Your task to perform on an android device: Open Google Chrome and click the shortcut for Amazon.com Image 0: 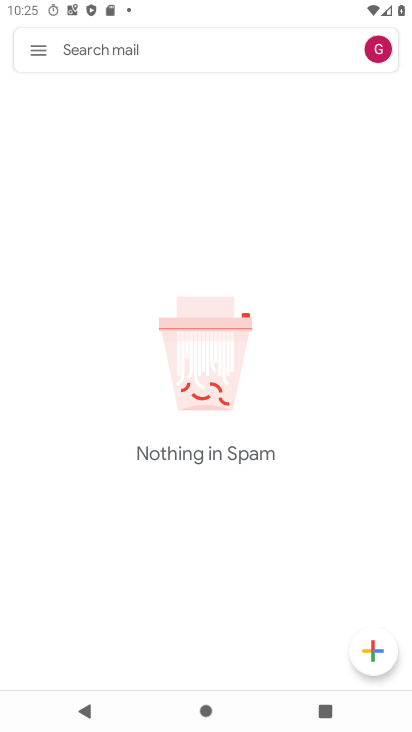
Step 0: press home button
Your task to perform on an android device: Open Google Chrome and click the shortcut for Amazon.com Image 1: 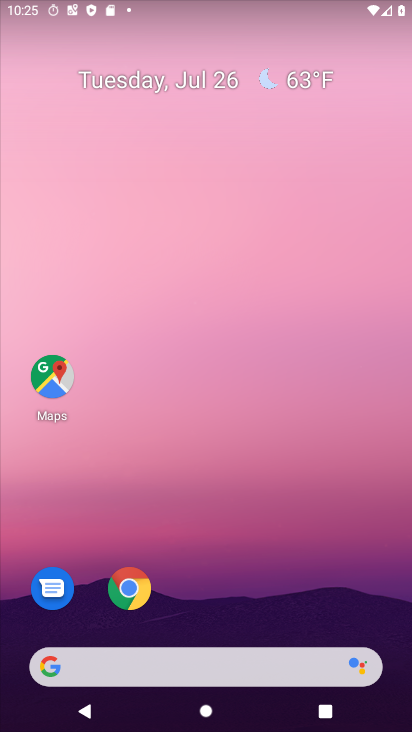
Step 1: click (127, 588)
Your task to perform on an android device: Open Google Chrome and click the shortcut for Amazon.com Image 2: 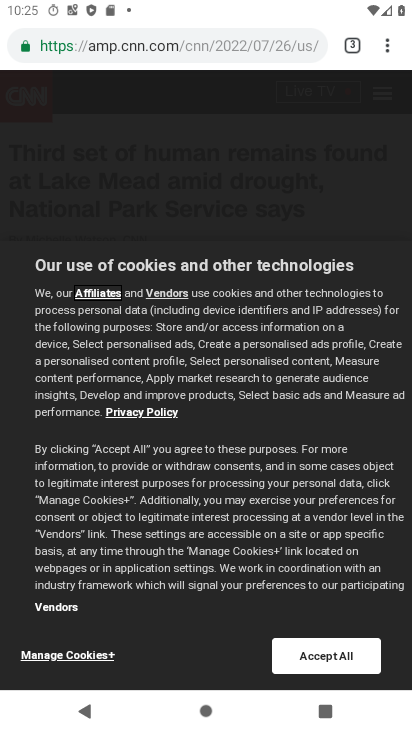
Step 2: click (349, 54)
Your task to perform on an android device: Open Google Chrome and click the shortcut for Amazon.com Image 3: 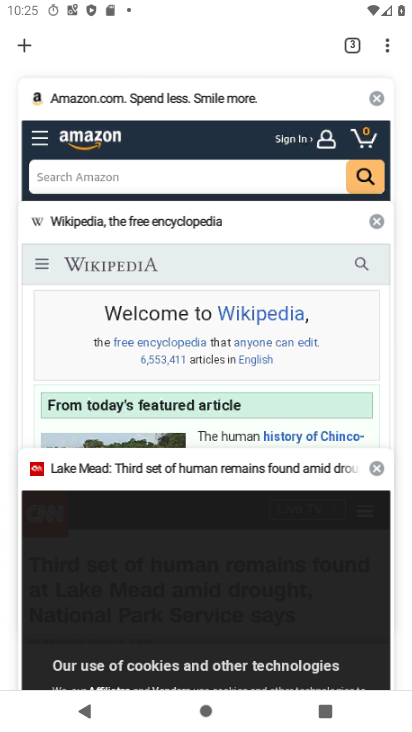
Step 3: click (20, 50)
Your task to perform on an android device: Open Google Chrome and click the shortcut for Amazon.com Image 4: 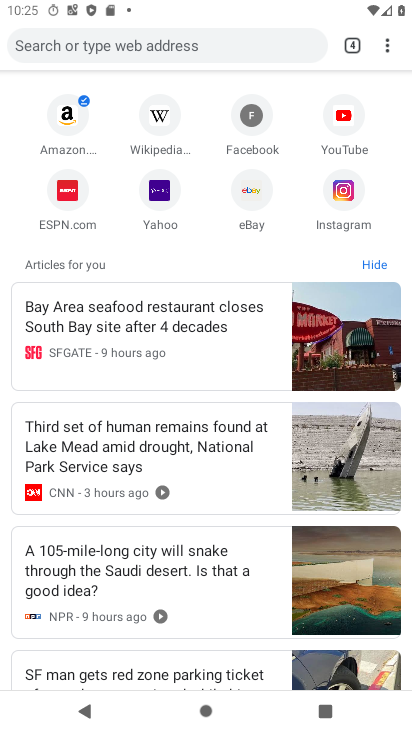
Step 4: click (64, 116)
Your task to perform on an android device: Open Google Chrome and click the shortcut for Amazon.com Image 5: 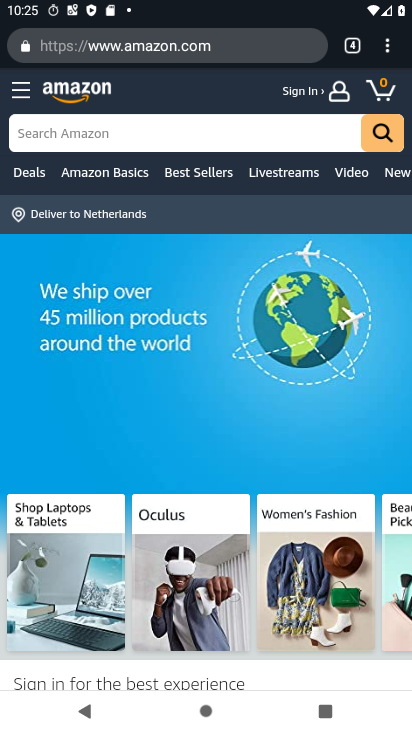
Step 5: task complete